Your task to perform on an android device: turn pop-ups on in chrome Image 0: 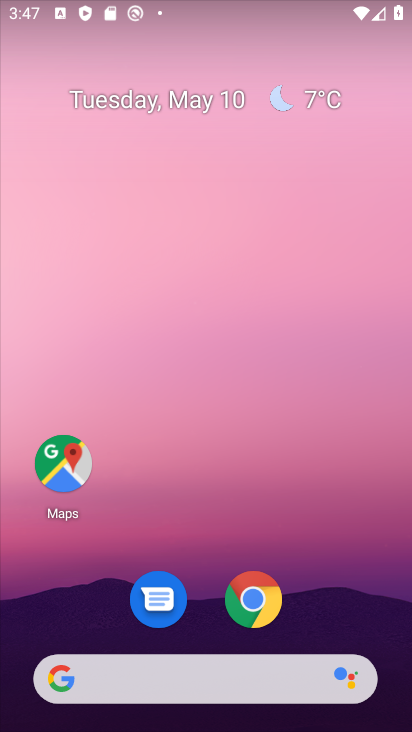
Step 0: drag from (213, 720) to (322, 184)
Your task to perform on an android device: turn pop-ups on in chrome Image 1: 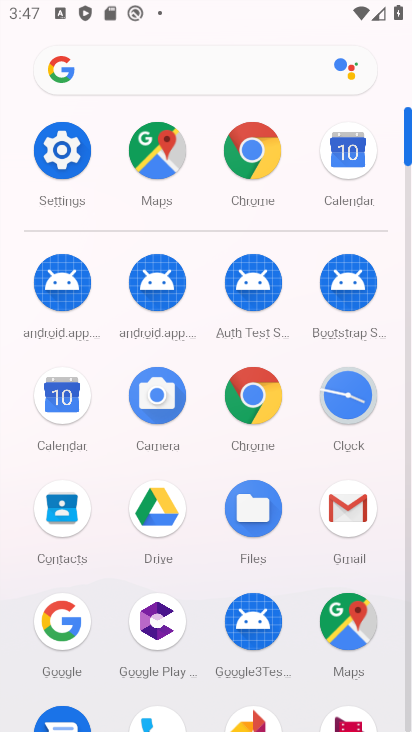
Step 1: click (246, 180)
Your task to perform on an android device: turn pop-ups on in chrome Image 2: 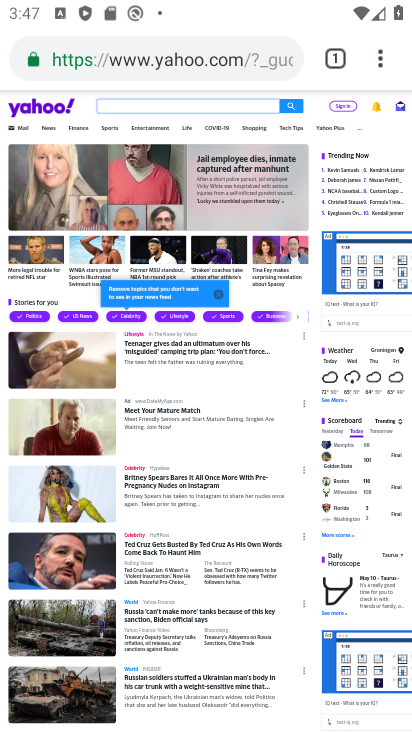
Step 2: click (380, 66)
Your task to perform on an android device: turn pop-ups on in chrome Image 3: 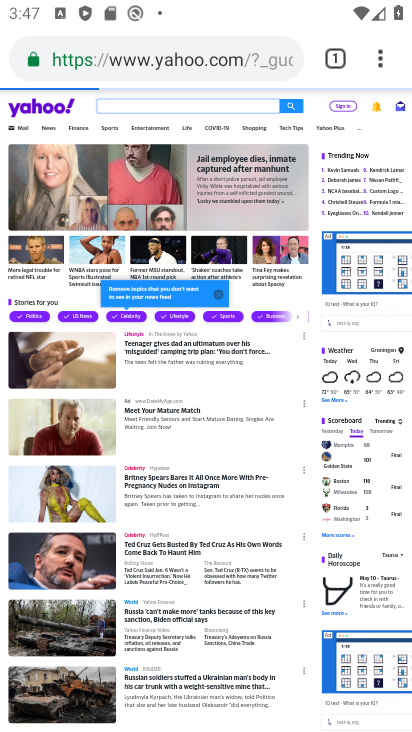
Step 3: click (379, 63)
Your task to perform on an android device: turn pop-ups on in chrome Image 4: 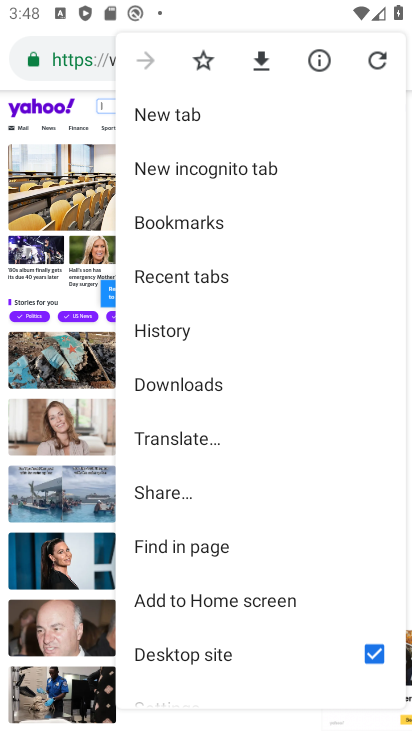
Step 4: drag from (207, 586) to (320, 262)
Your task to perform on an android device: turn pop-ups on in chrome Image 5: 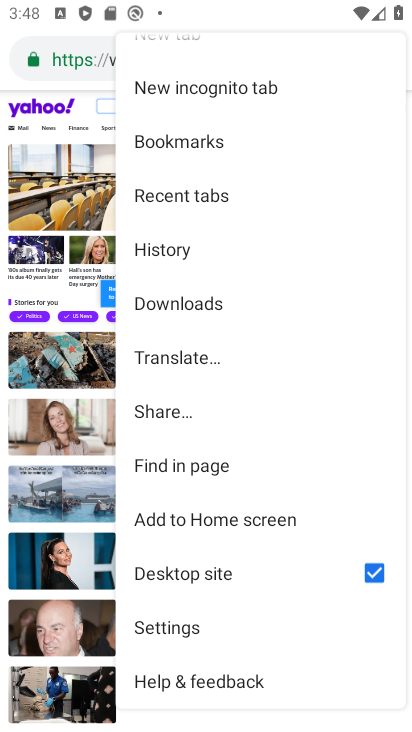
Step 5: click (256, 634)
Your task to perform on an android device: turn pop-ups on in chrome Image 6: 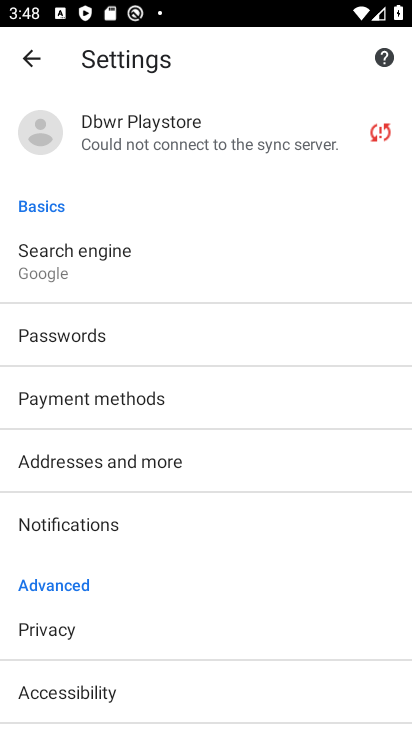
Step 6: drag from (206, 562) to (228, 340)
Your task to perform on an android device: turn pop-ups on in chrome Image 7: 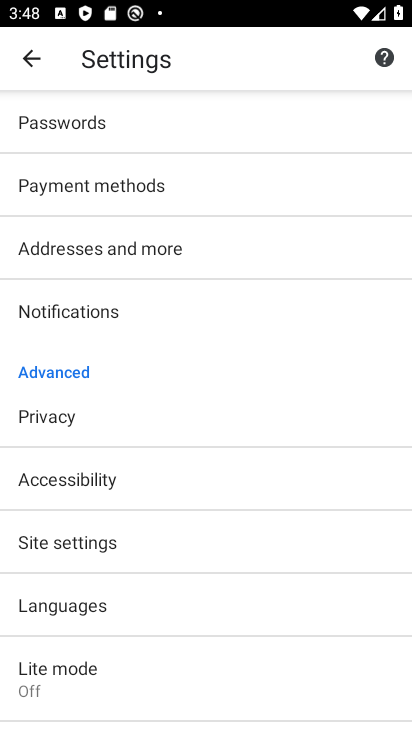
Step 7: drag from (220, 578) to (314, 266)
Your task to perform on an android device: turn pop-ups on in chrome Image 8: 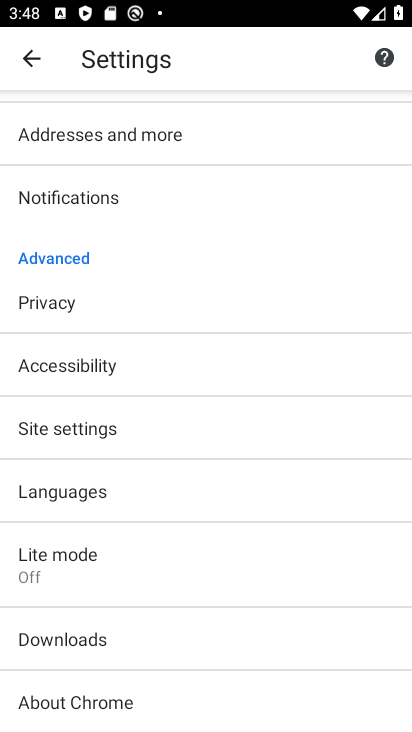
Step 8: click (137, 434)
Your task to perform on an android device: turn pop-ups on in chrome Image 9: 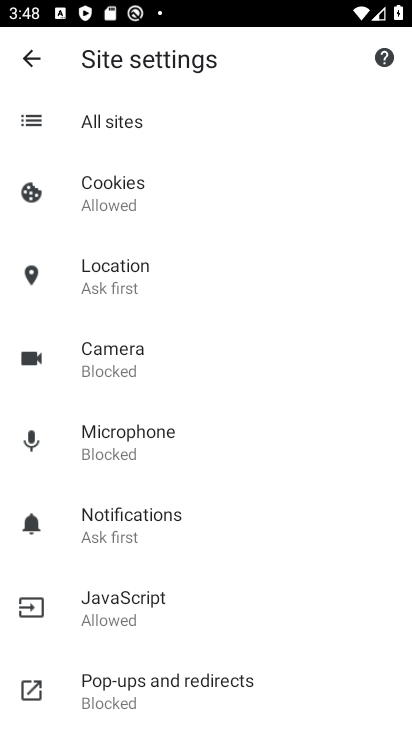
Step 9: drag from (193, 645) to (288, 304)
Your task to perform on an android device: turn pop-ups on in chrome Image 10: 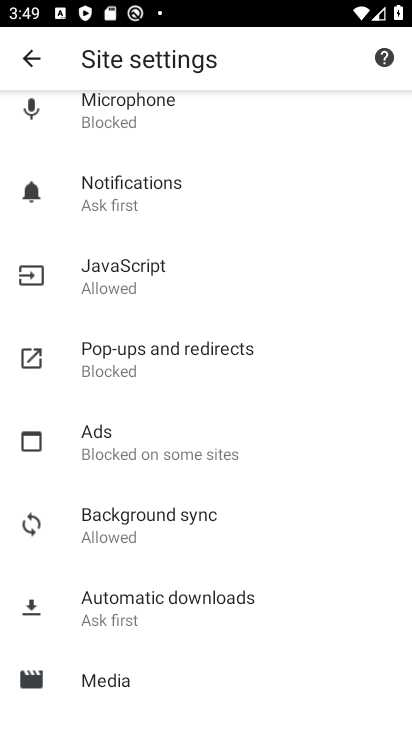
Step 10: click (175, 359)
Your task to perform on an android device: turn pop-ups on in chrome Image 11: 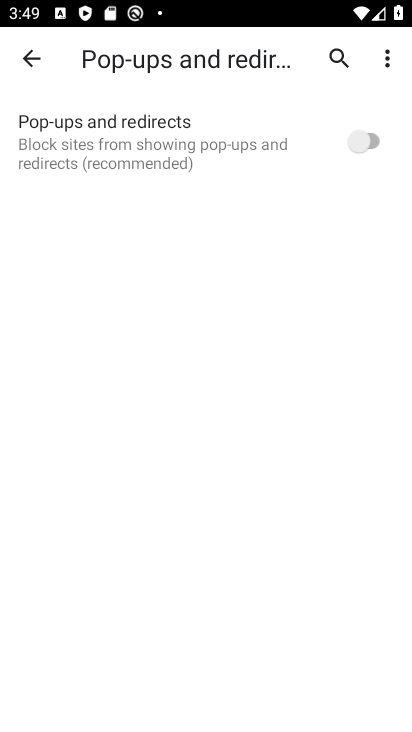
Step 11: click (370, 141)
Your task to perform on an android device: turn pop-ups on in chrome Image 12: 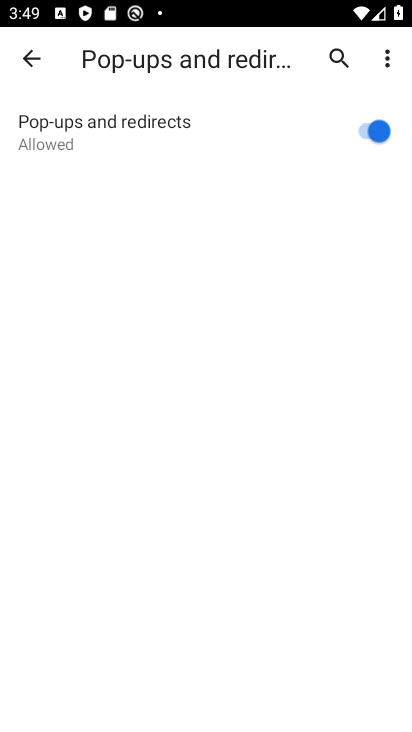
Step 12: task complete